Your task to perform on an android device: Open Android settings Image 0: 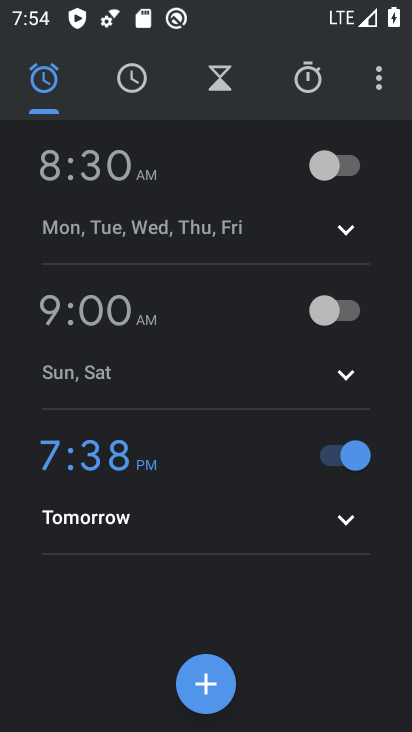
Step 0: press home button
Your task to perform on an android device: Open Android settings Image 1: 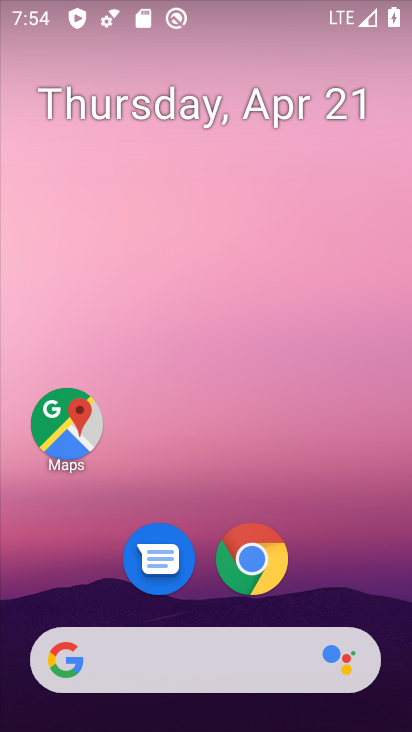
Step 1: drag from (326, 586) to (322, 185)
Your task to perform on an android device: Open Android settings Image 2: 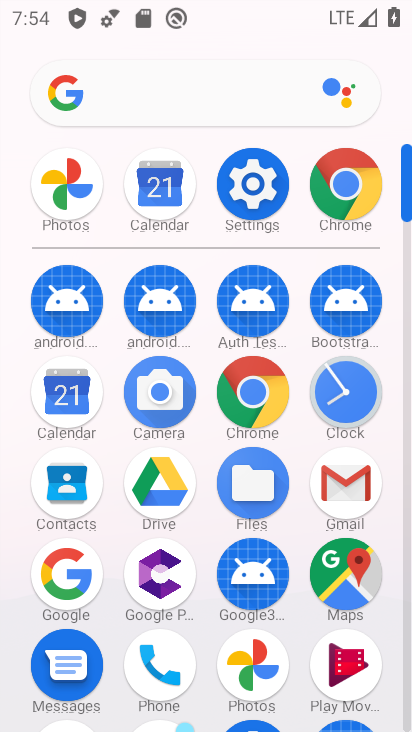
Step 2: drag from (200, 612) to (243, 332)
Your task to perform on an android device: Open Android settings Image 3: 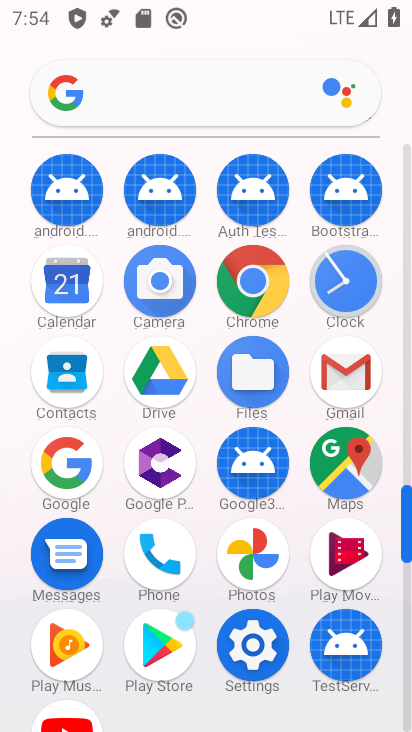
Step 3: click (232, 647)
Your task to perform on an android device: Open Android settings Image 4: 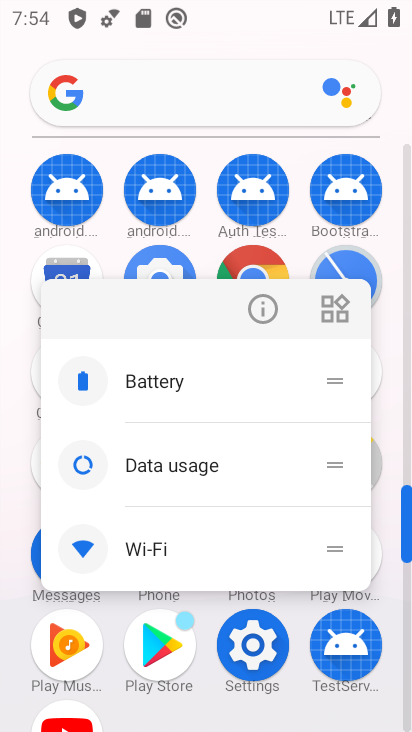
Step 4: click (259, 656)
Your task to perform on an android device: Open Android settings Image 5: 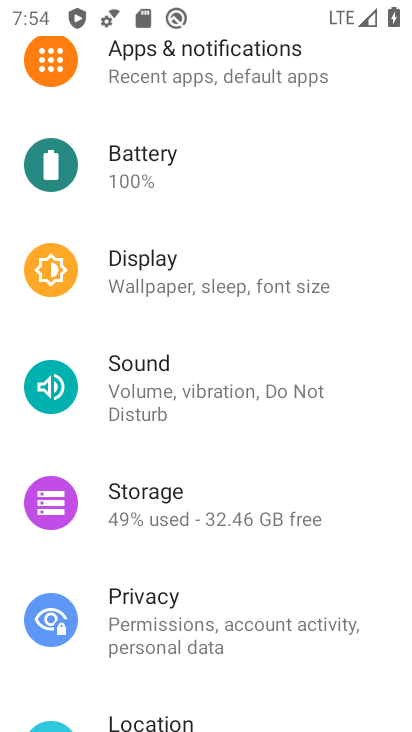
Step 5: task complete